Your task to perform on an android device: Open Google Chrome Image 0: 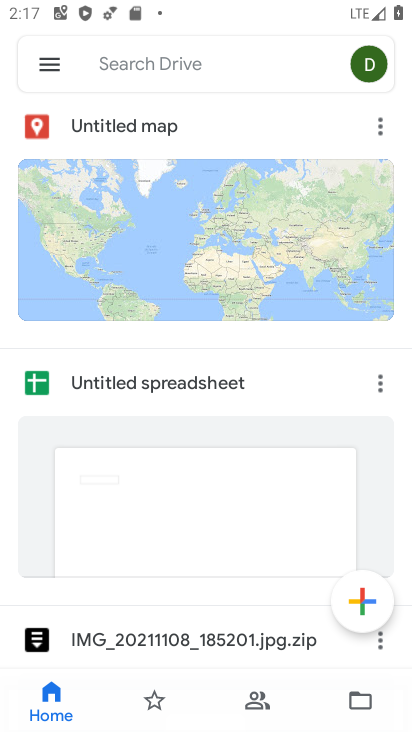
Step 0: press home button
Your task to perform on an android device: Open Google Chrome Image 1: 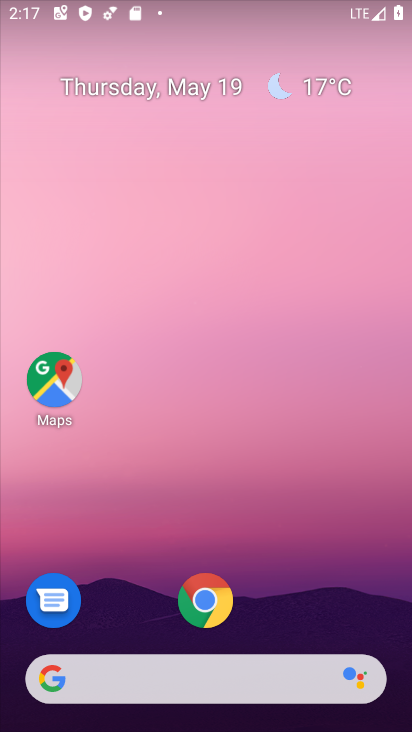
Step 1: click (212, 591)
Your task to perform on an android device: Open Google Chrome Image 2: 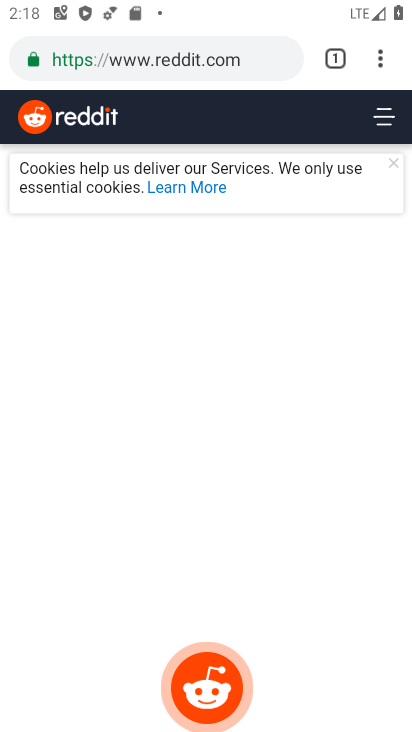
Step 2: task complete